Your task to perform on an android device: Open Google Chrome and click the shortcut for Amazon.com Image 0: 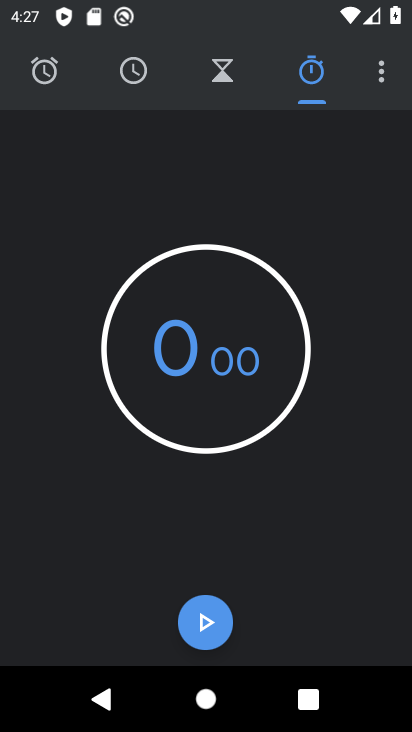
Step 0: press home button
Your task to perform on an android device: Open Google Chrome and click the shortcut for Amazon.com Image 1: 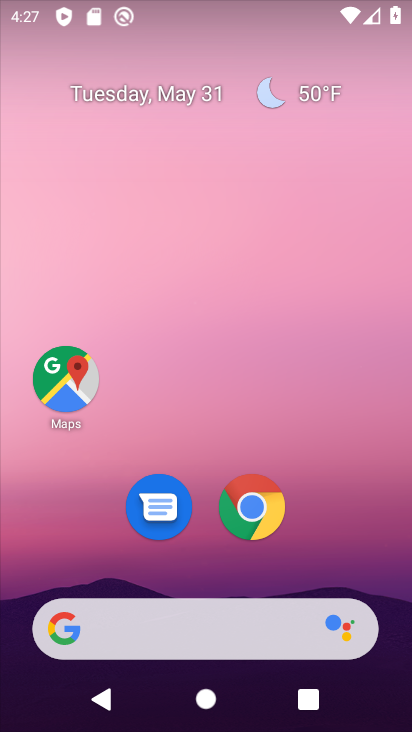
Step 1: click (256, 507)
Your task to perform on an android device: Open Google Chrome and click the shortcut for Amazon.com Image 2: 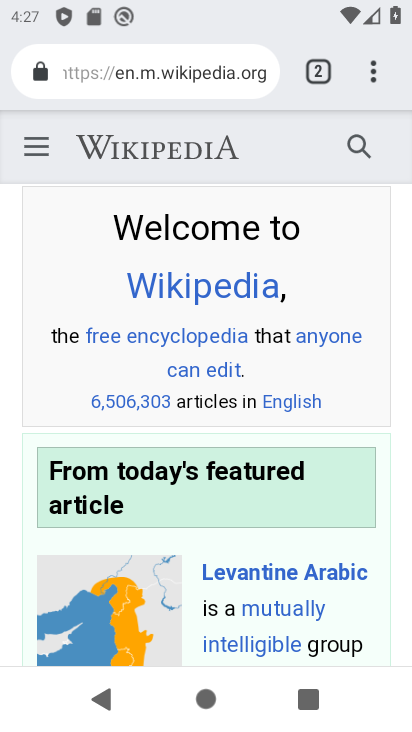
Step 2: click (377, 70)
Your task to perform on an android device: Open Google Chrome and click the shortcut for Amazon.com Image 3: 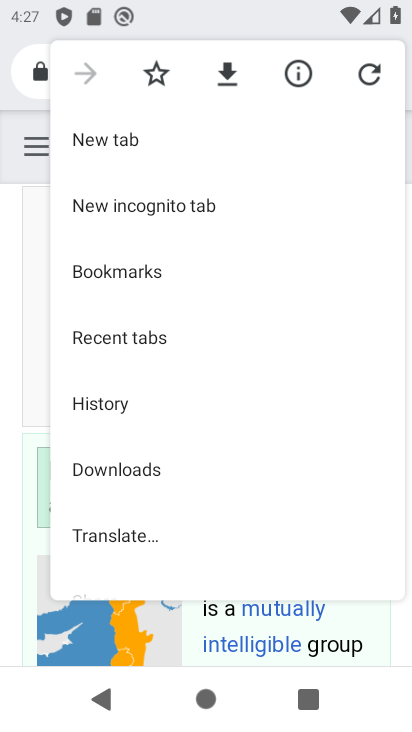
Step 3: click (304, 127)
Your task to perform on an android device: Open Google Chrome and click the shortcut for Amazon.com Image 4: 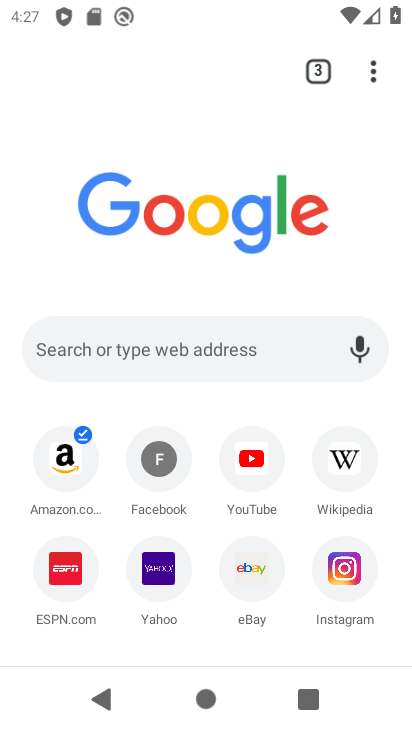
Step 4: click (64, 445)
Your task to perform on an android device: Open Google Chrome and click the shortcut for Amazon.com Image 5: 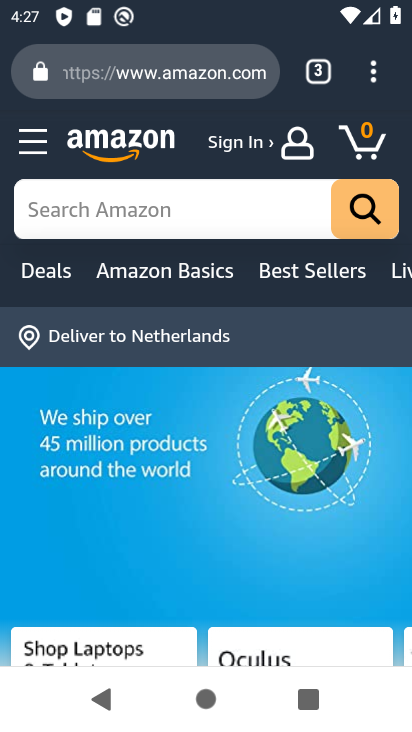
Step 5: task complete